Your task to perform on an android device: Open Chrome and go to settings Image 0: 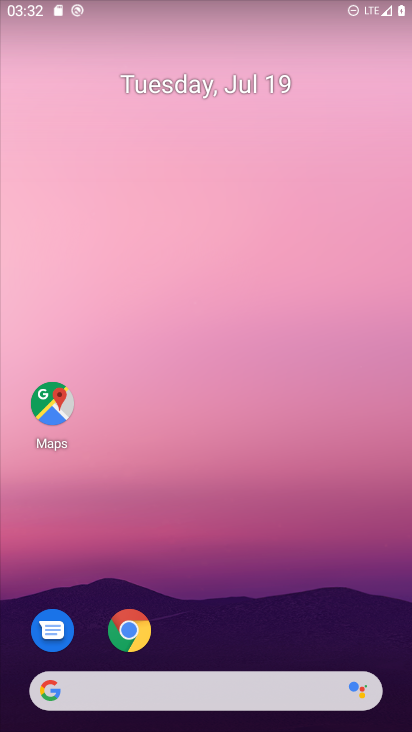
Step 0: click (127, 630)
Your task to perform on an android device: Open Chrome and go to settings Image 1: 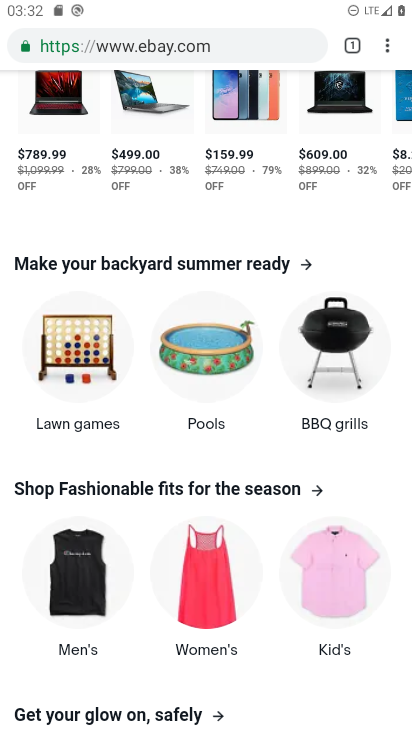
Step 1: click (387, 46)
Your task to perform on an android device: Open Chrome and go to settings Image 2: 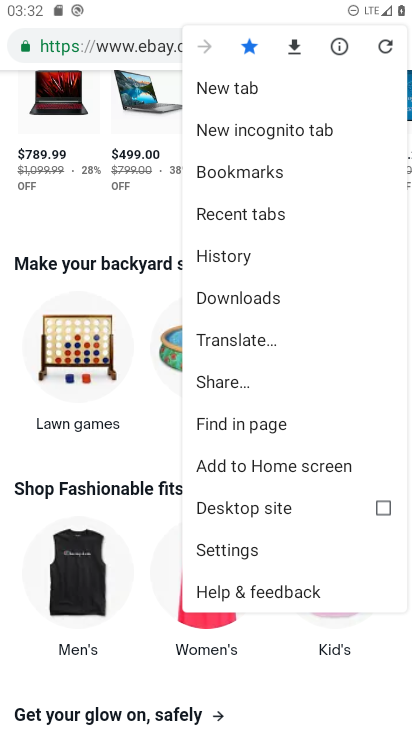
Step 2: click (228, 551)
Your task to perform on an android device: Open Chrome and go to settings Image 3: 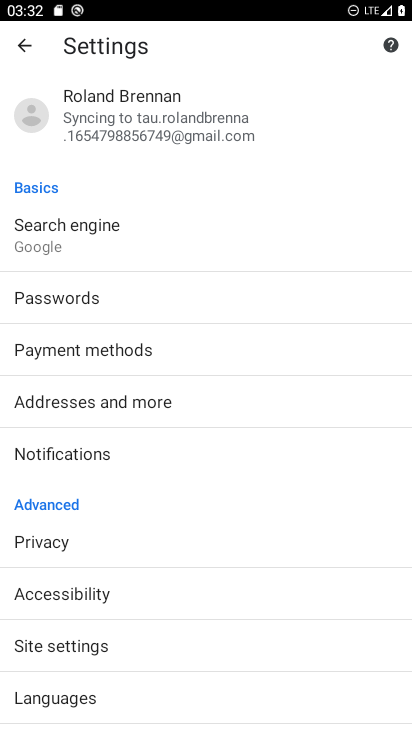
Step 3: task complete